Your task to perform on an android device: Search for seafood restaurants on Google Maps Image 0: 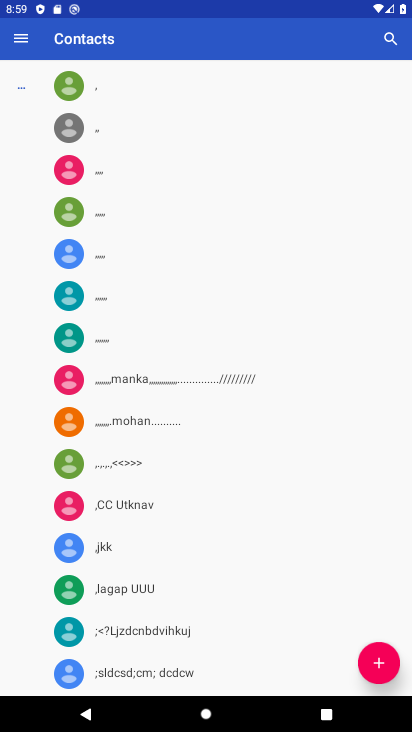
Step 0: press home button
Your task to perform on an android device: Search for seafood restaurants on Google Maps Image 1: 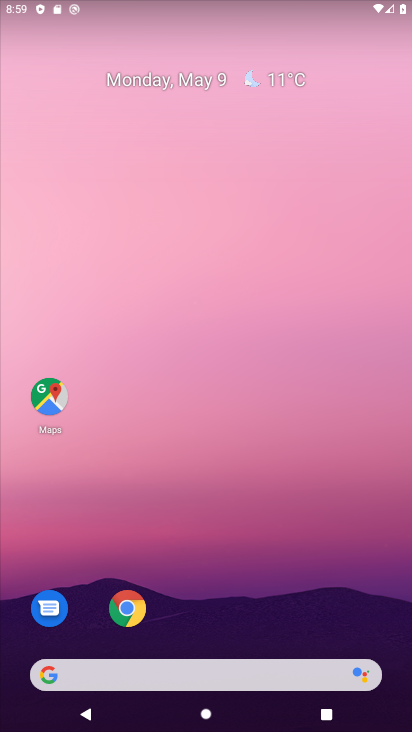
Step 1: click (46, 394)
Your task to perform on an android device: Search for seafood restaurants on Google Maps Image 2: 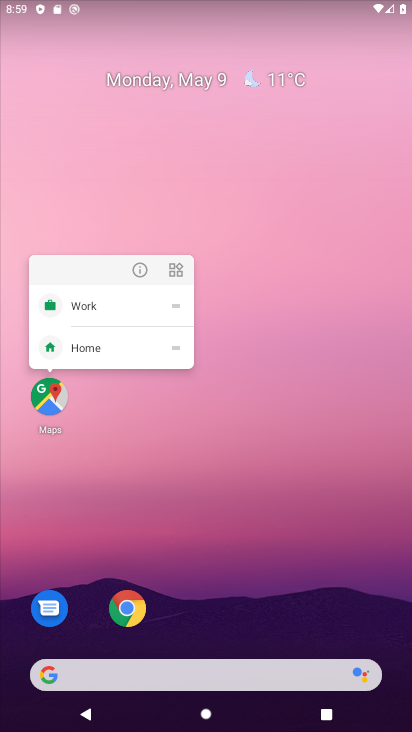
Step 2: click (140, 267)
Your task to perform on an android device: Search for seafood restaurants on Google Maps Image 3: 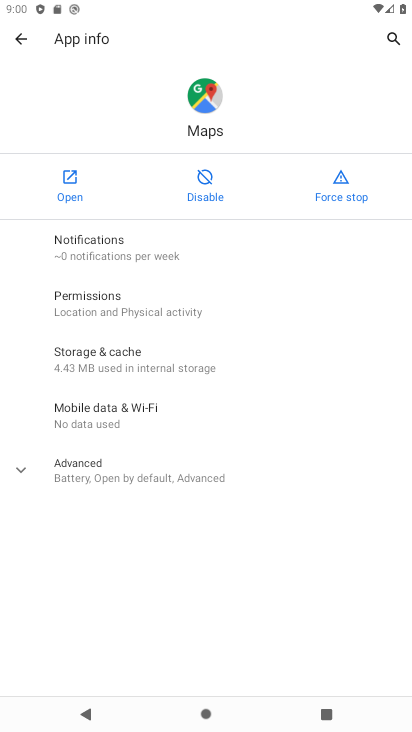
Step 3: click (69, 191)
Your task to perform on an android device: Search for seafood restaurants on Google Maps Image 4: 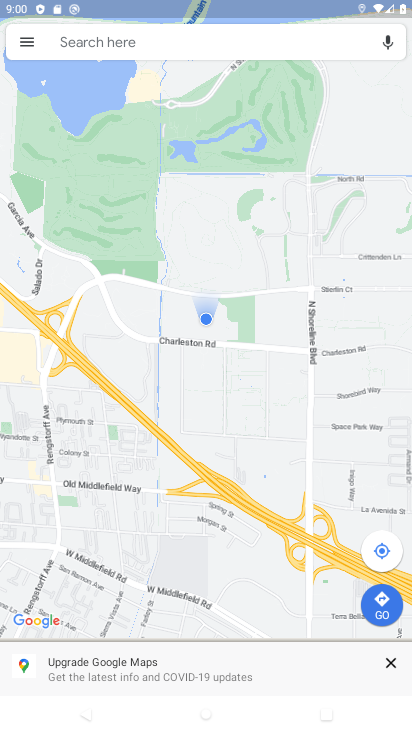
Step 4: click (101, 46)
Your task to perform on an android device: Search for seafood restaurants on Google Maps Image 5: 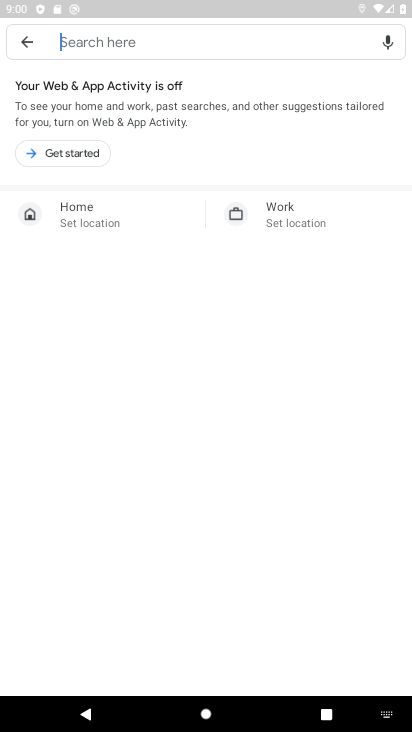
Step 5: type "seafood restaurants "
Your task to perform on an android device: Search for seafood restaurants on Google Maps Image 6: 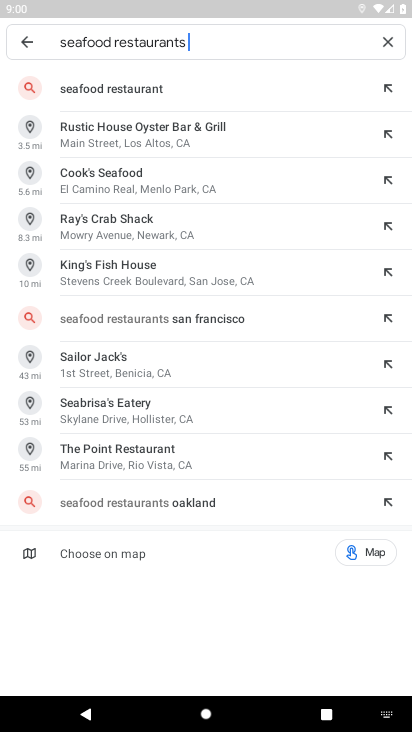
Step 6: click (147, 97)
Your task to perform on an android device: Search for seafood restaurants on Google Maps Image 7: 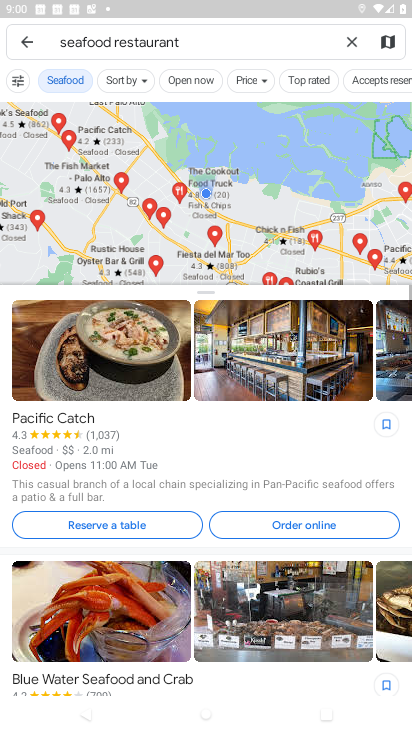
Step 7: task complete